Your task to perform on an android device: install app "Roku - Official Remote Control" Image 0: 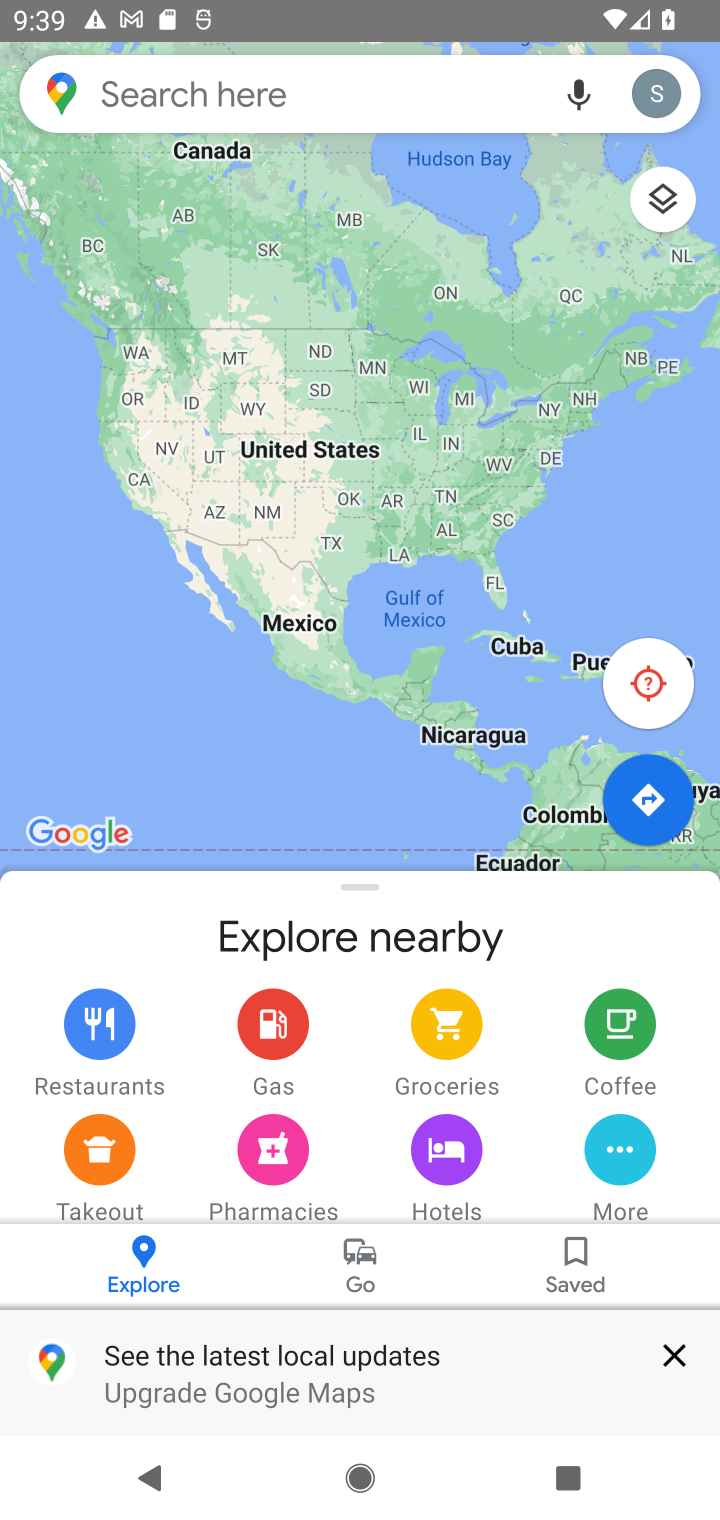
Step 0: press home button
Your task to perform on an android device: install app "Roku - Official Remote Control" Image 1: 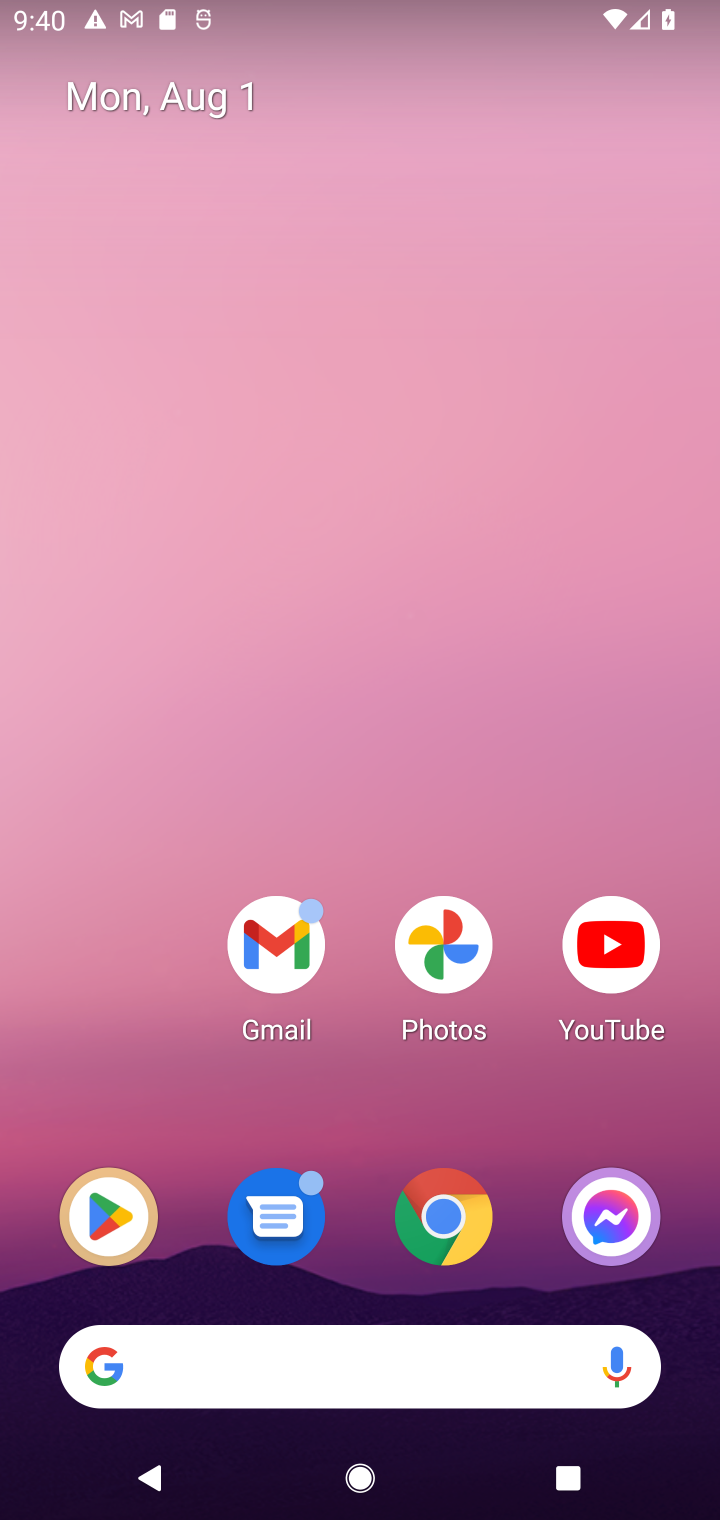
Step 1: click (116, 1211)
Your task to perform on an android device: install app "Roku - Official Remote Control" Image 2: 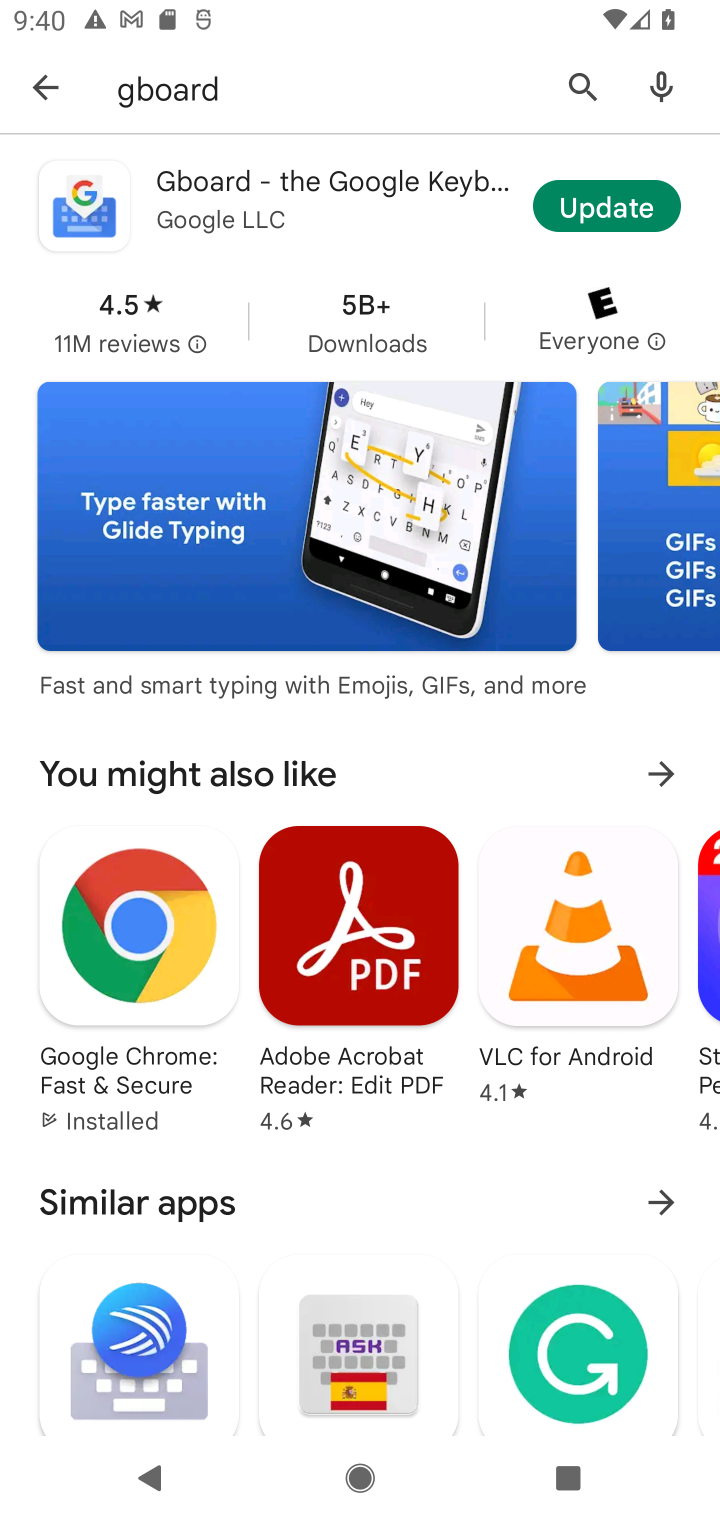
Step 2: click (582, 101)
Your task to perform on an android device: install app "Roku - Official Remote Control" Image 3: 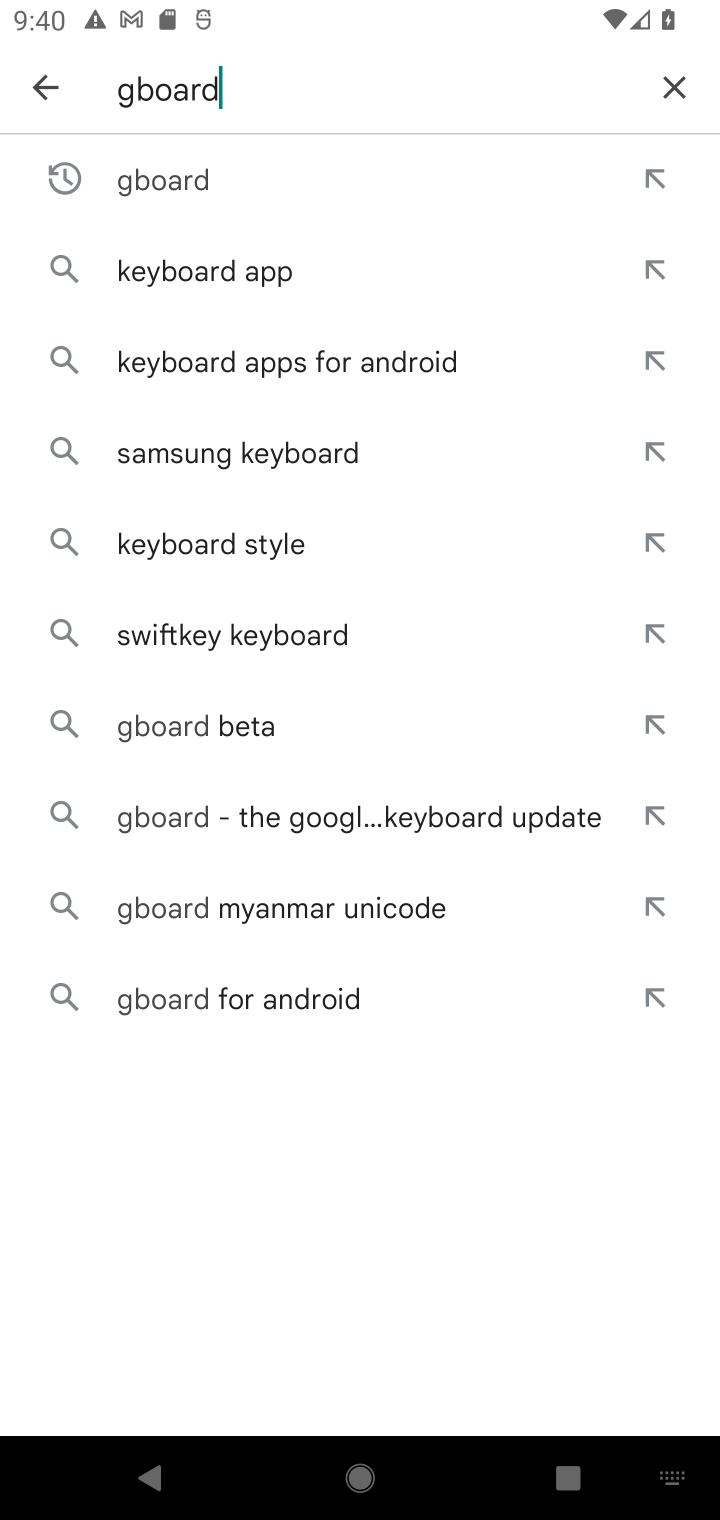
Step 3: click (661, 84)
Your task to perform on an android device: install app "Roku - Official Remote Control" Image 4: 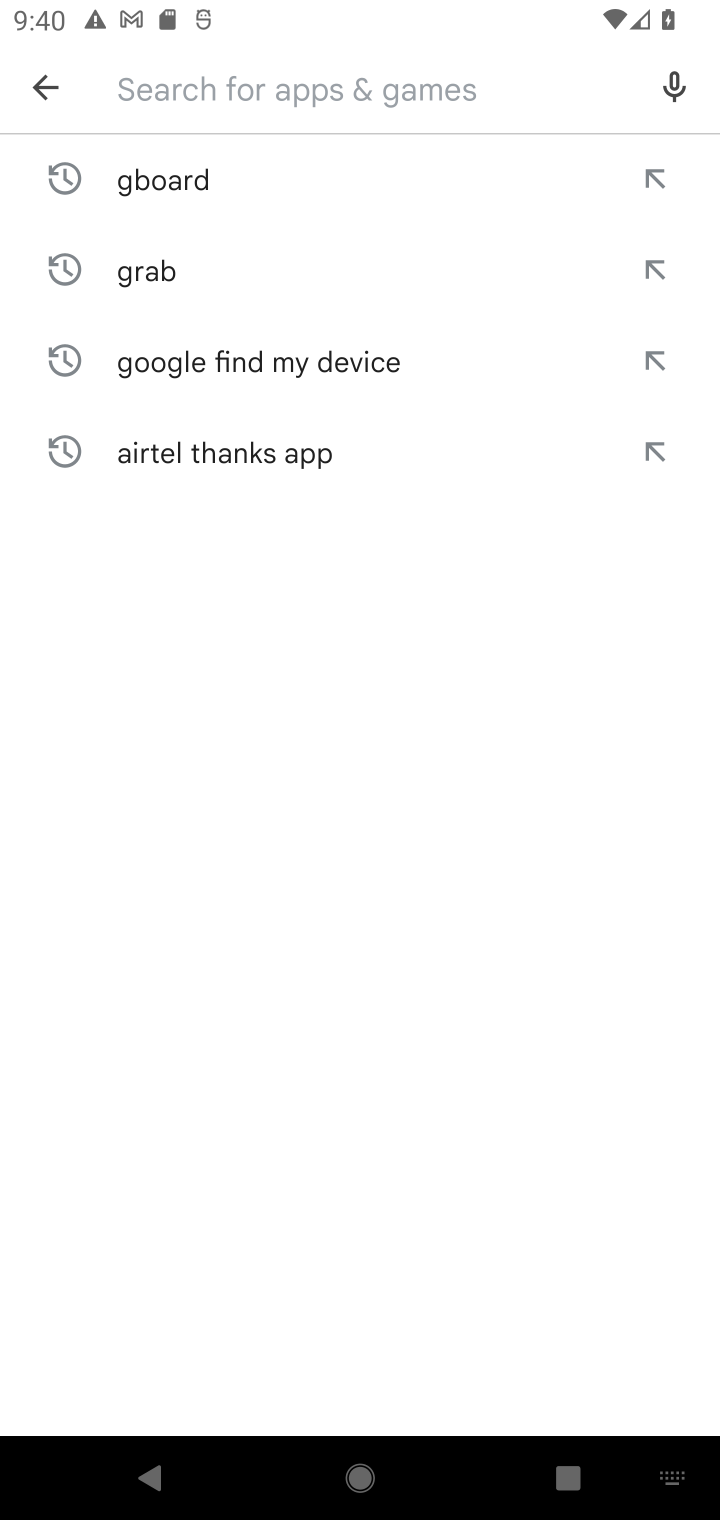
Step 4: type "Roku - Official Remote Control"
Your task to perform on an android device: install app "Roku - Official Remote Control" Image 5: 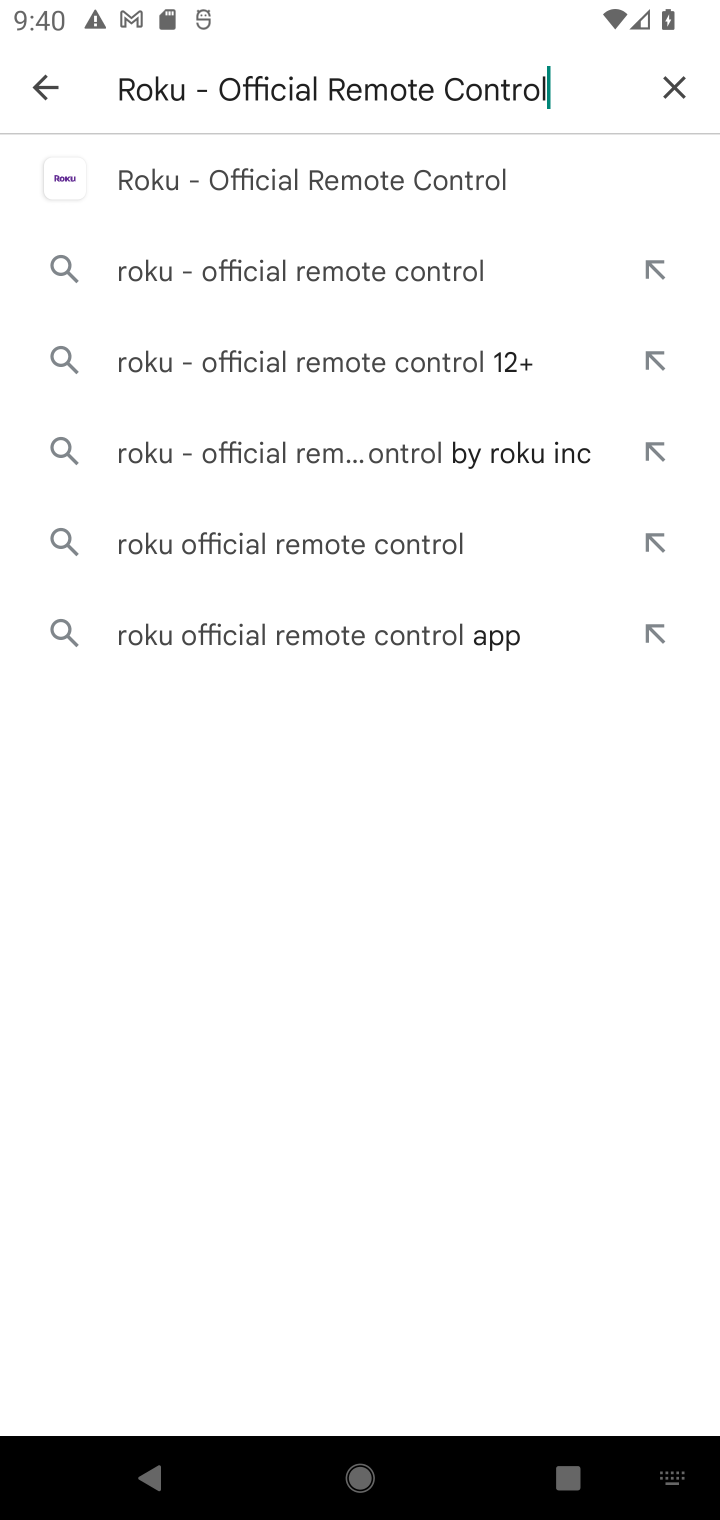
Step 5: click (369, 195)
Your task to perform on an android device: install app "Roku - Official Remote Control" Image 6: 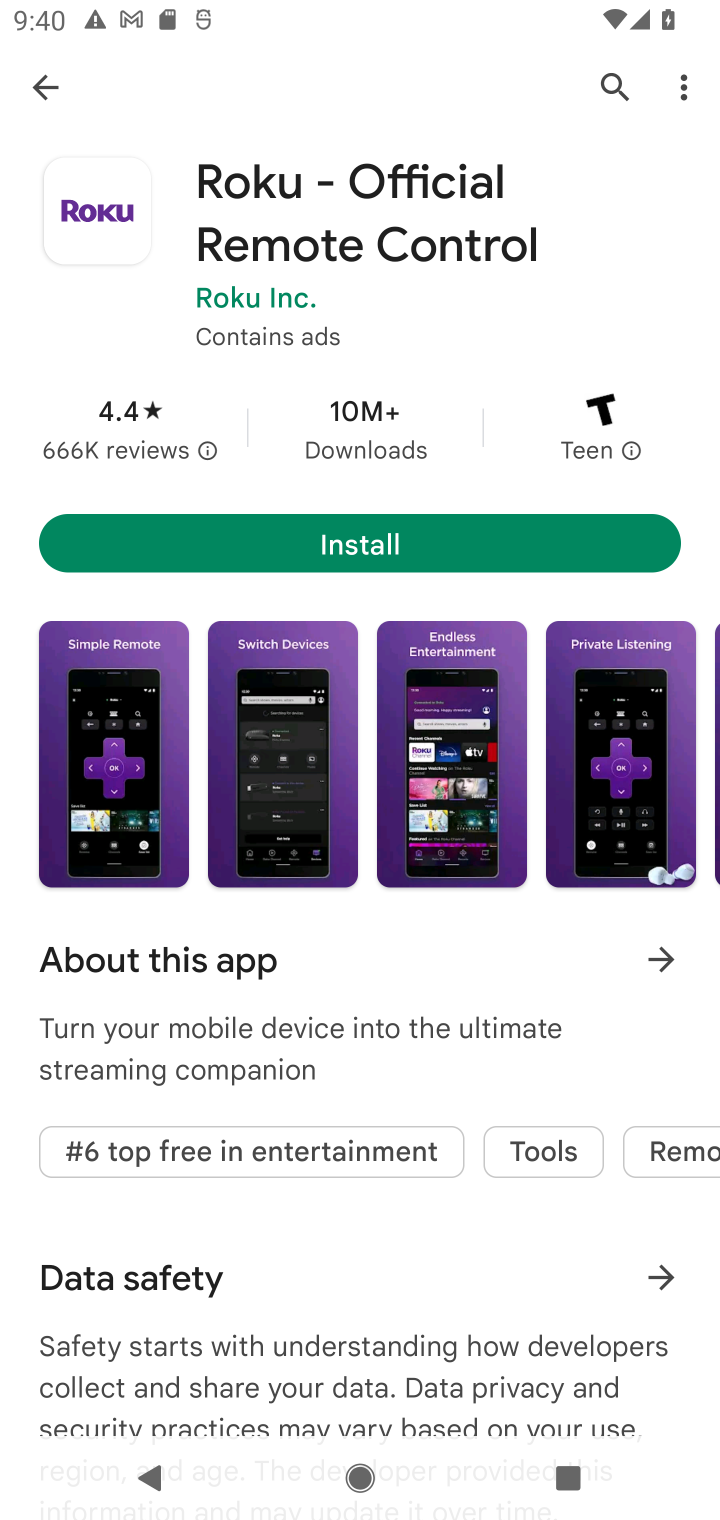
Step 6: click (333, 557)
Your task to perform on an android device: install app "Roku - Official Remote Control" Image 7: 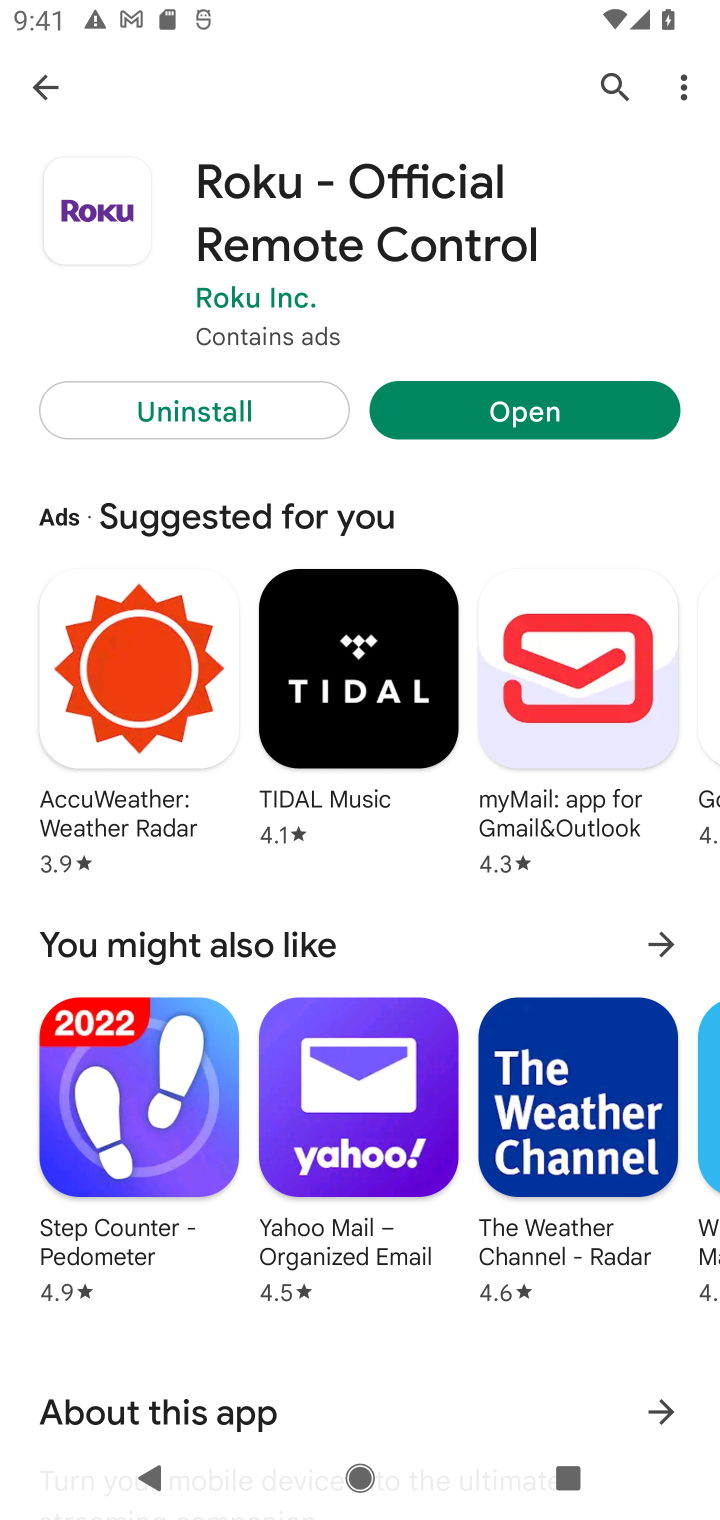
Step 7: task complete